Your task to perform on an android device: turn off airplane mode Image 0: 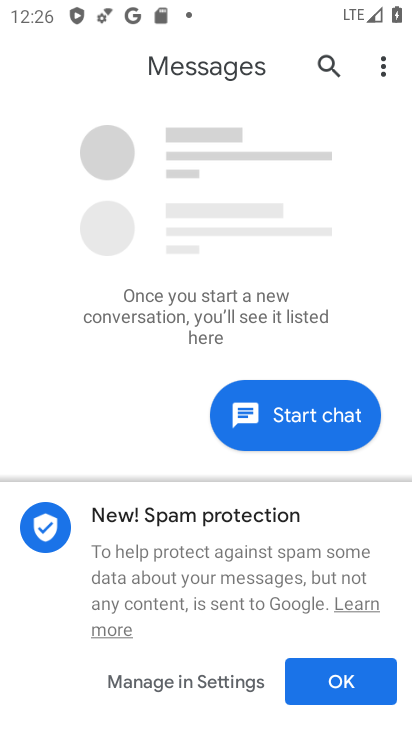
Step 0: press home button
Your task to perform on an android device: turn off airplane mode Image 1: 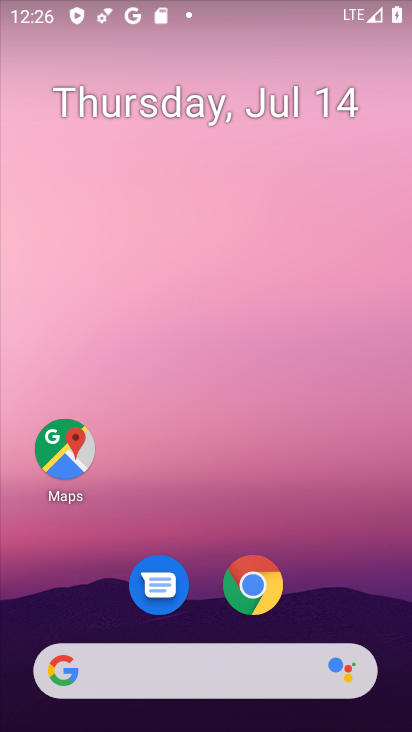
Step 1: drag from (328, 592) to (302, 7)
Your task to perform on an android device: turn off airplane mode Image 2: 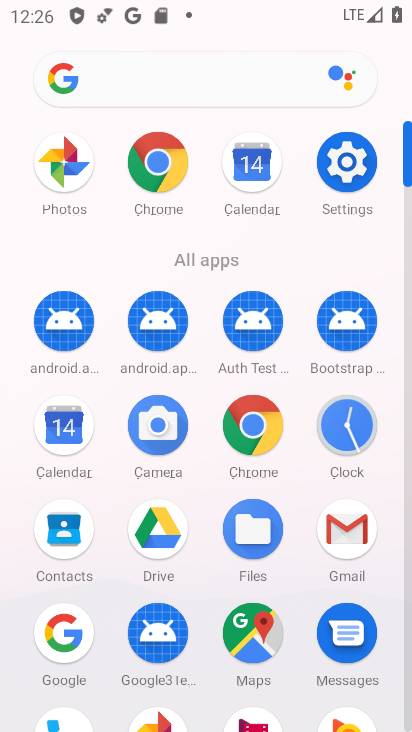
Step 2: click (350, 166)
Your task to perform on an android device: turn off airplane mode Image 3: 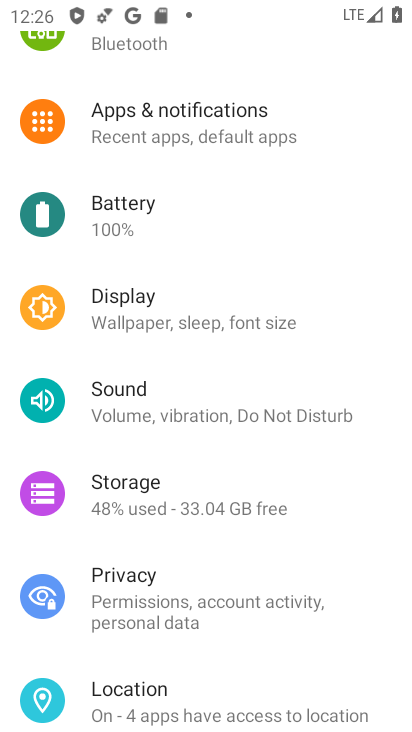
Step 3: drag from (267, 230) to (228, 582)
Your task to perform on an android device: turn off airplane mode Image 4: 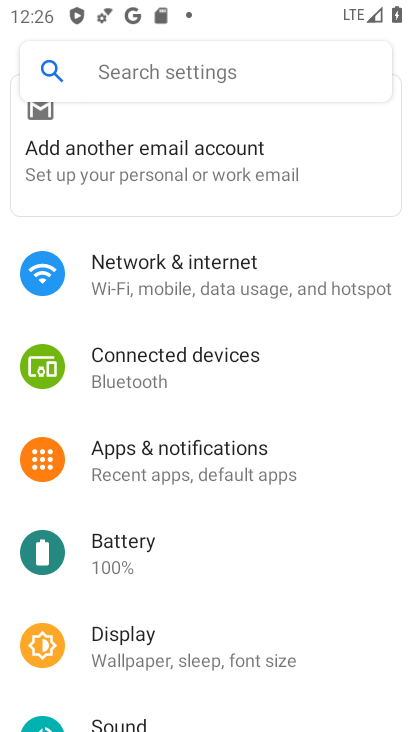
Step 4: click (256, 280)
Your task to perform on an android device: turn off airplane mode Image 5: 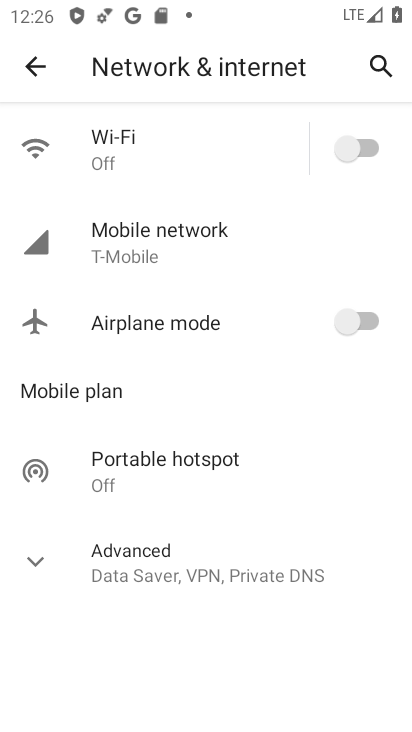
Step 5: task complete